Your task to perform on an android device: install app "File Manager" Image 0: 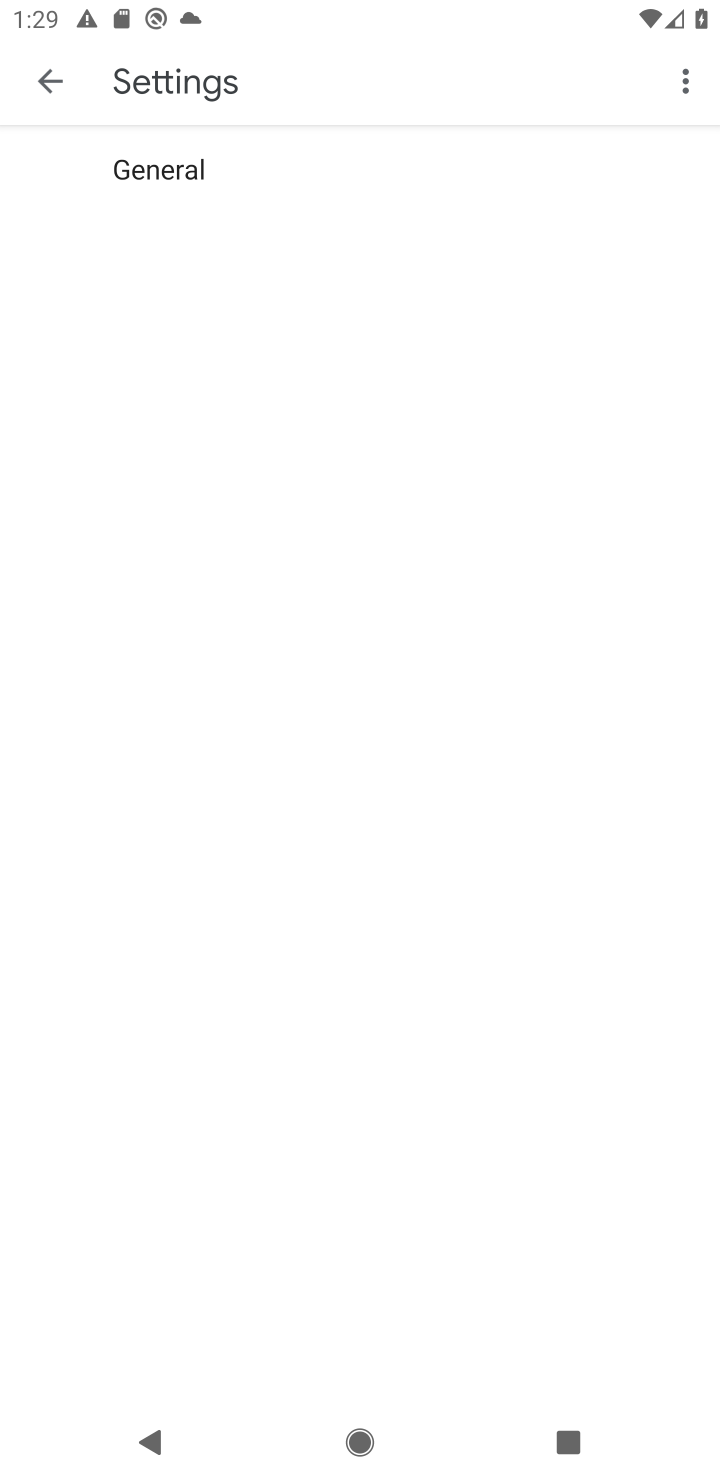
Step 0: press home button
Your task to perform on an android device: install app "File Manager" Image 1: 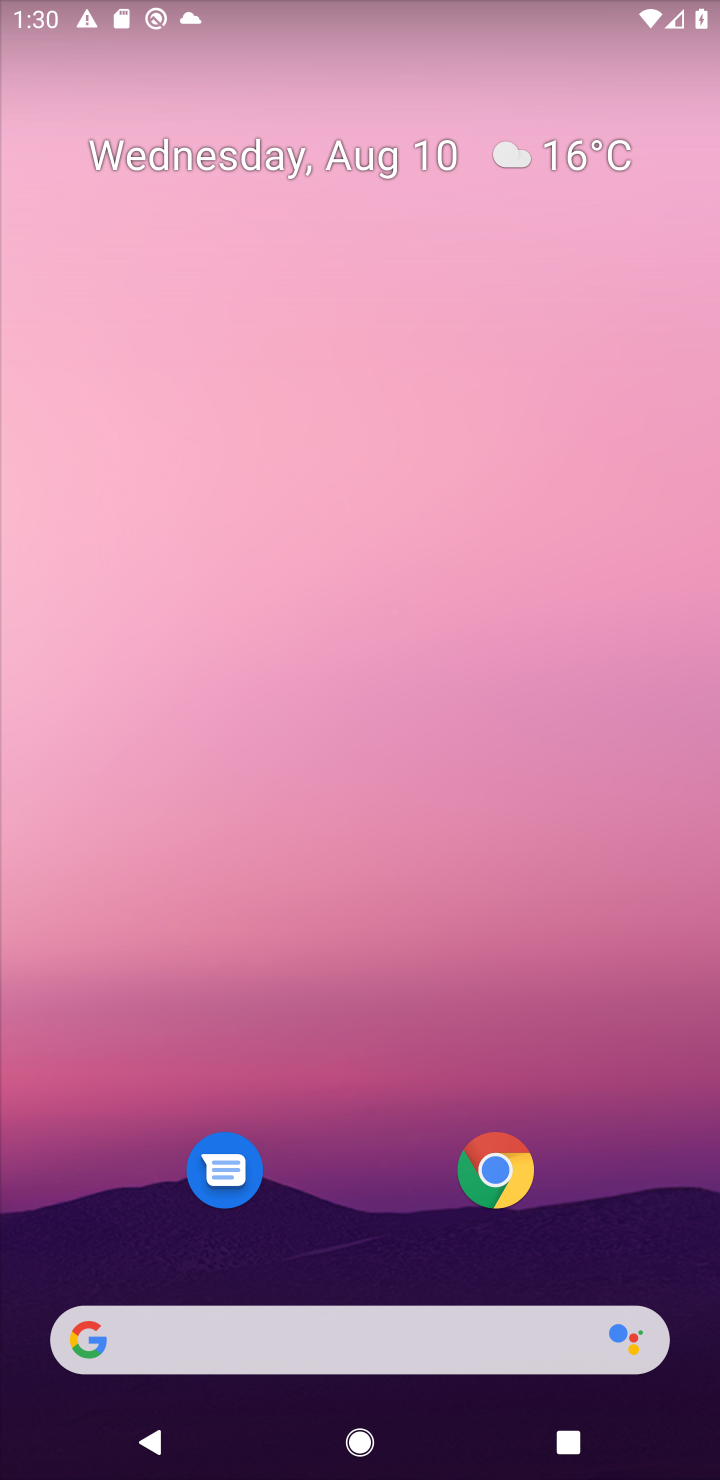
Step 1: drag from (394, 1323) to (324, 439)
Your task to perform on an android device: install app "File Manager" Image 2: 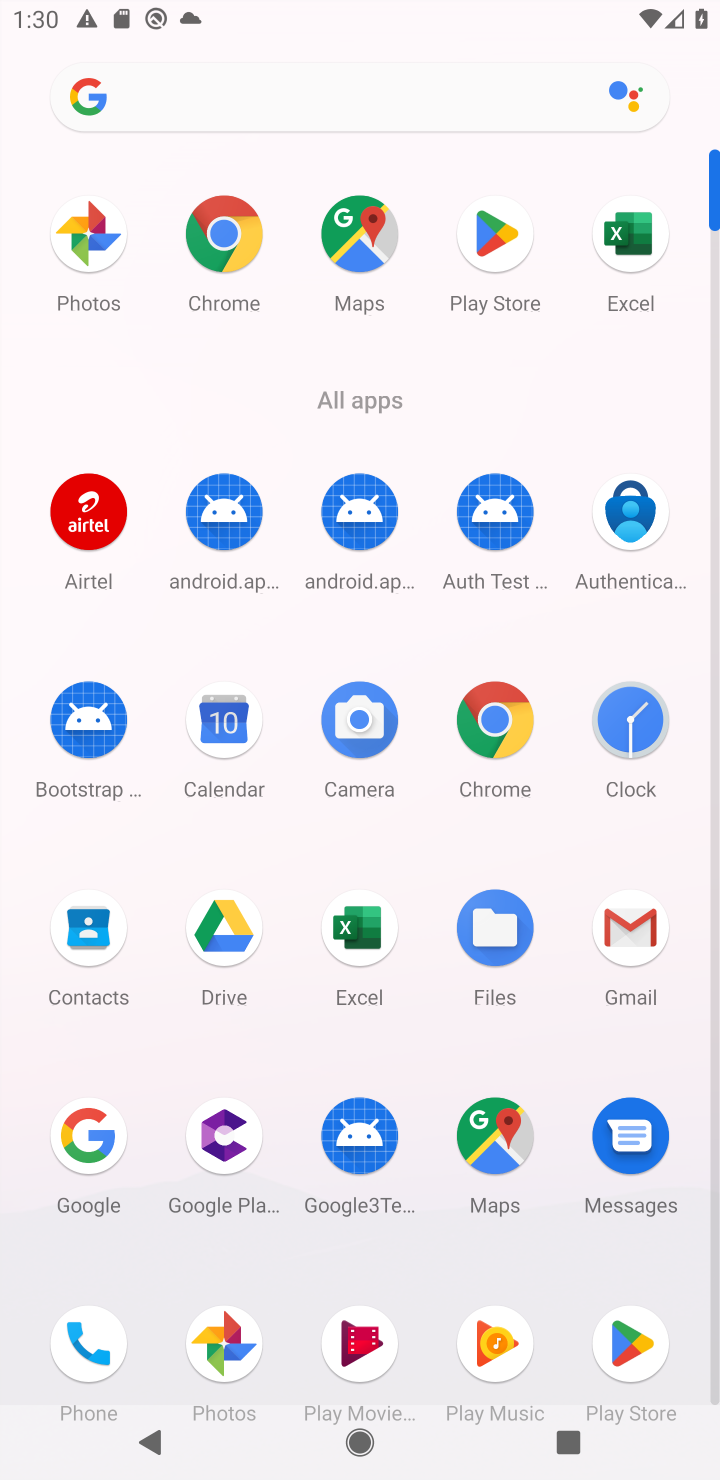
Step 2: click (520, 268)
Your task to perform on an android device: install app "File Manager" Image 3: 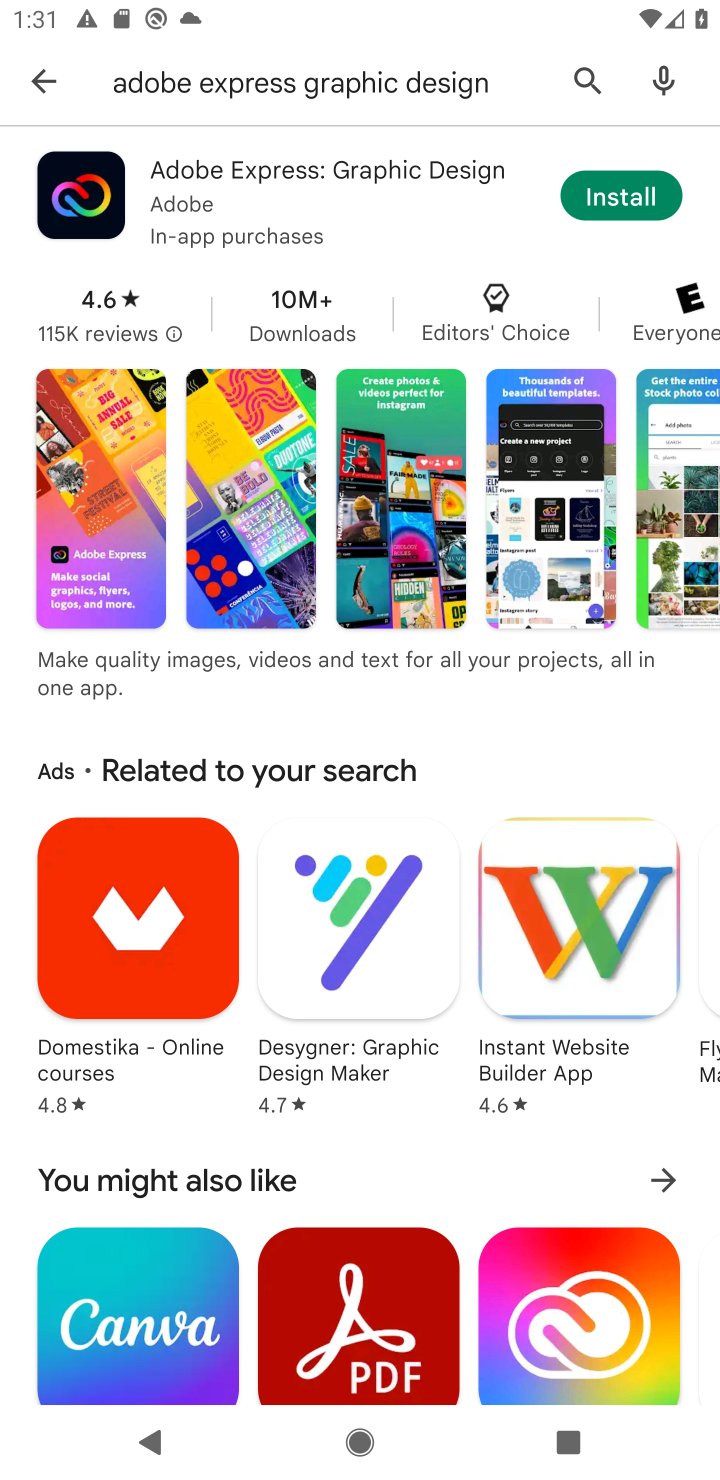
Step 3: click (569, 100)
Your task to perform on an android device: install app "File Manager" Image 4: 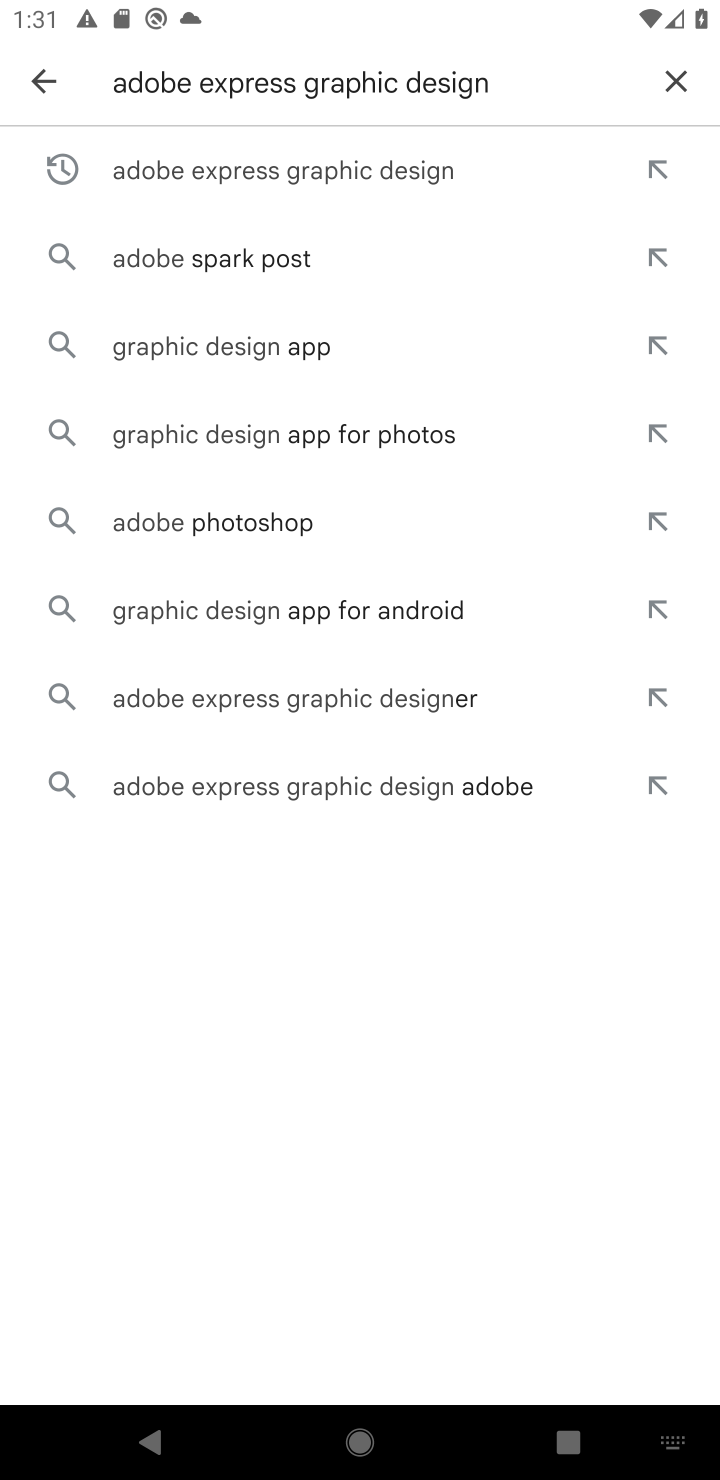
Step 4: click (684, 89)
Your task to perform on an android device: install app "File Manager" Image 5: 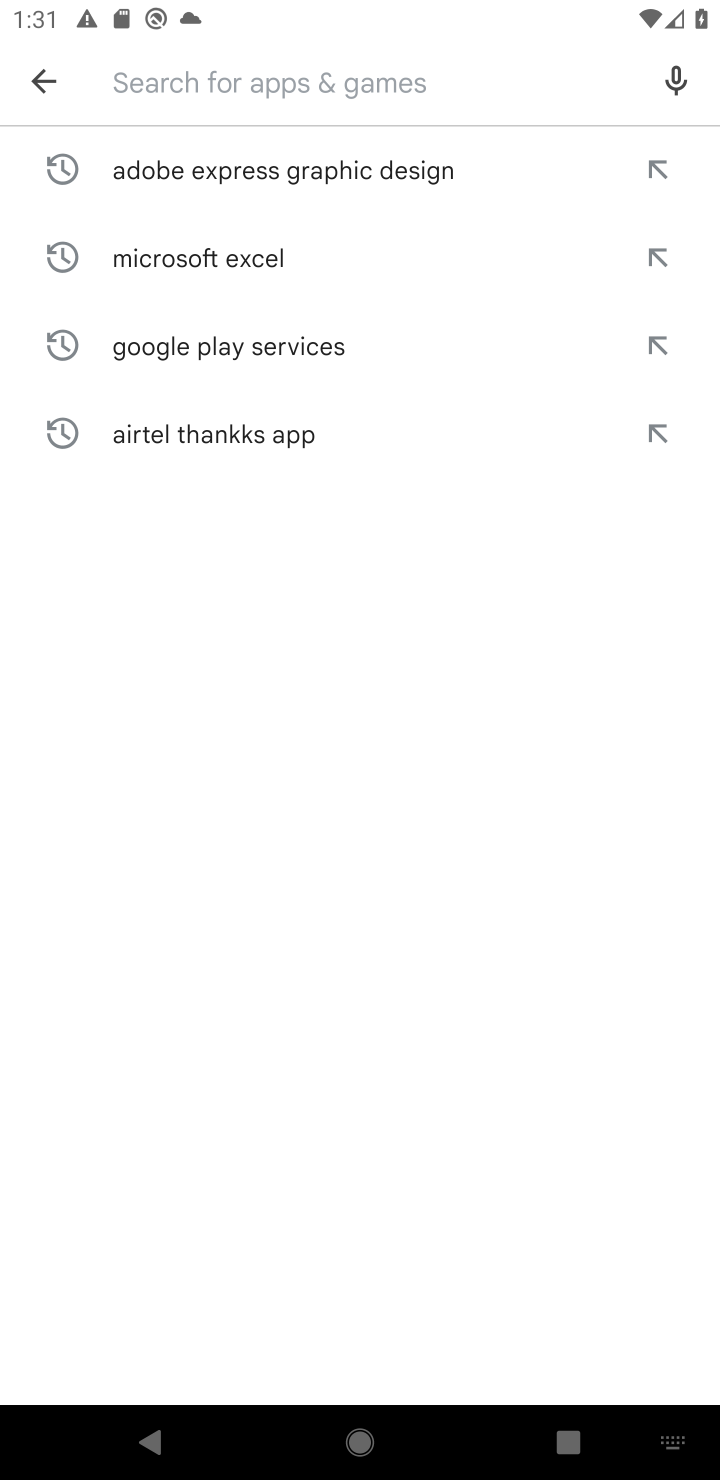
Step 5: type "File Manager"
Your task to perform on an android device: install app "File Manager" Image 6: 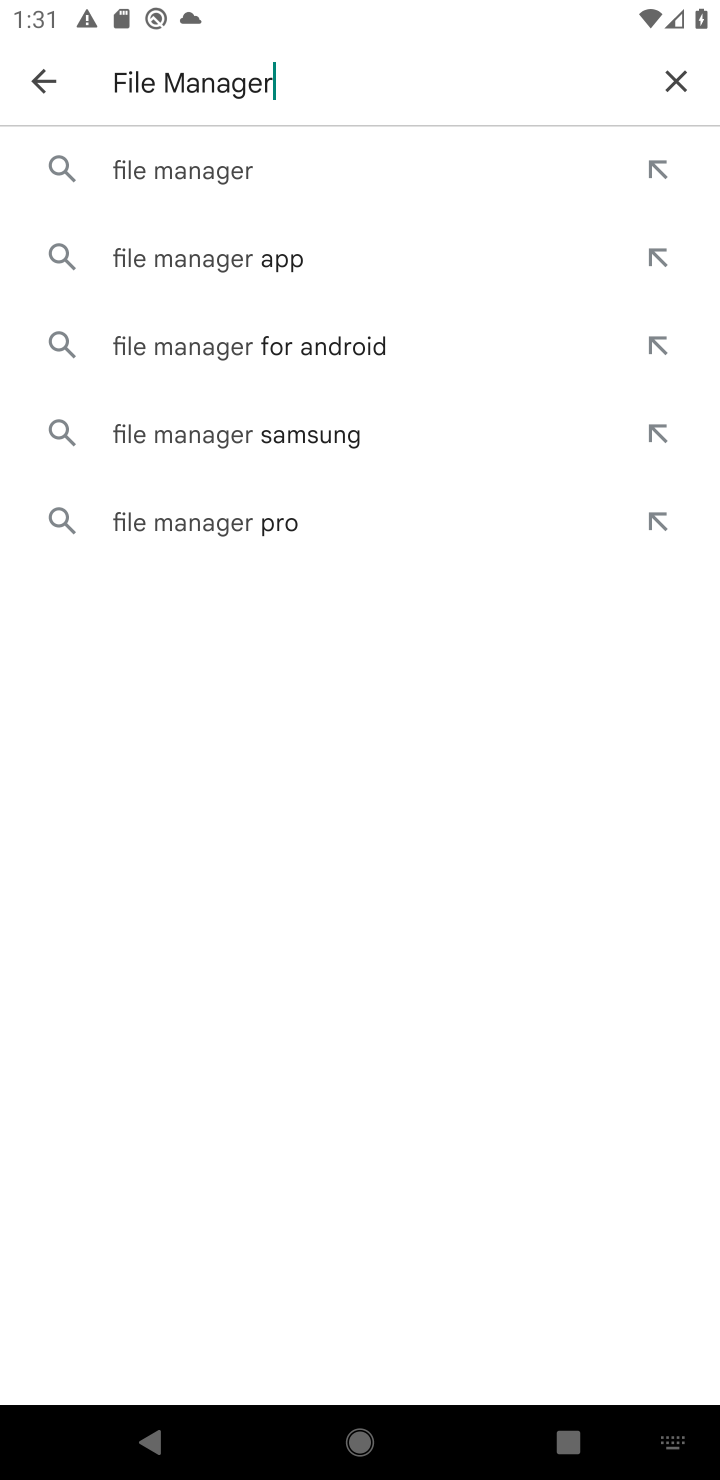
Step 6: click (220, 158)
Your task to perform on an android device: install app "File Manager" Image 7: 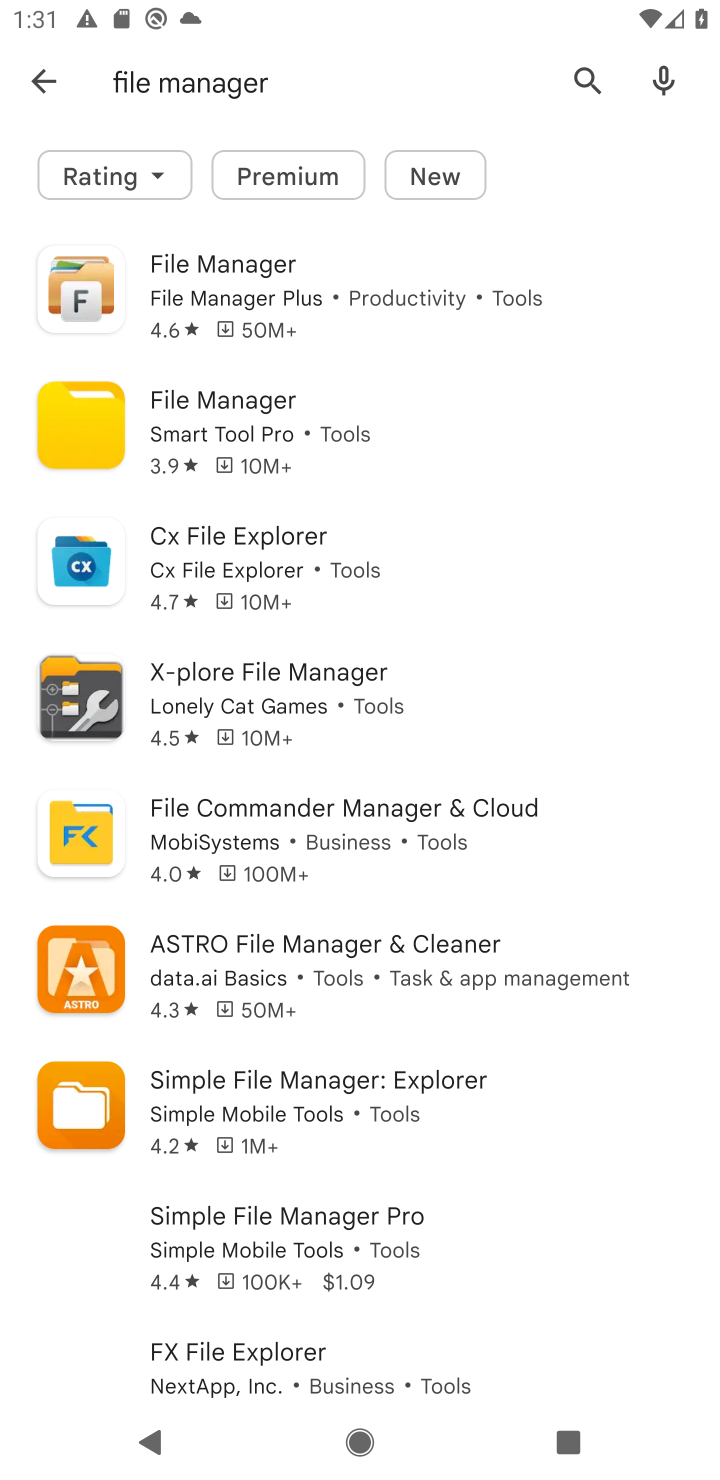
Step 7: click (277, 321)
Your task to perform on an android device: install app "File Manager" Image 8: 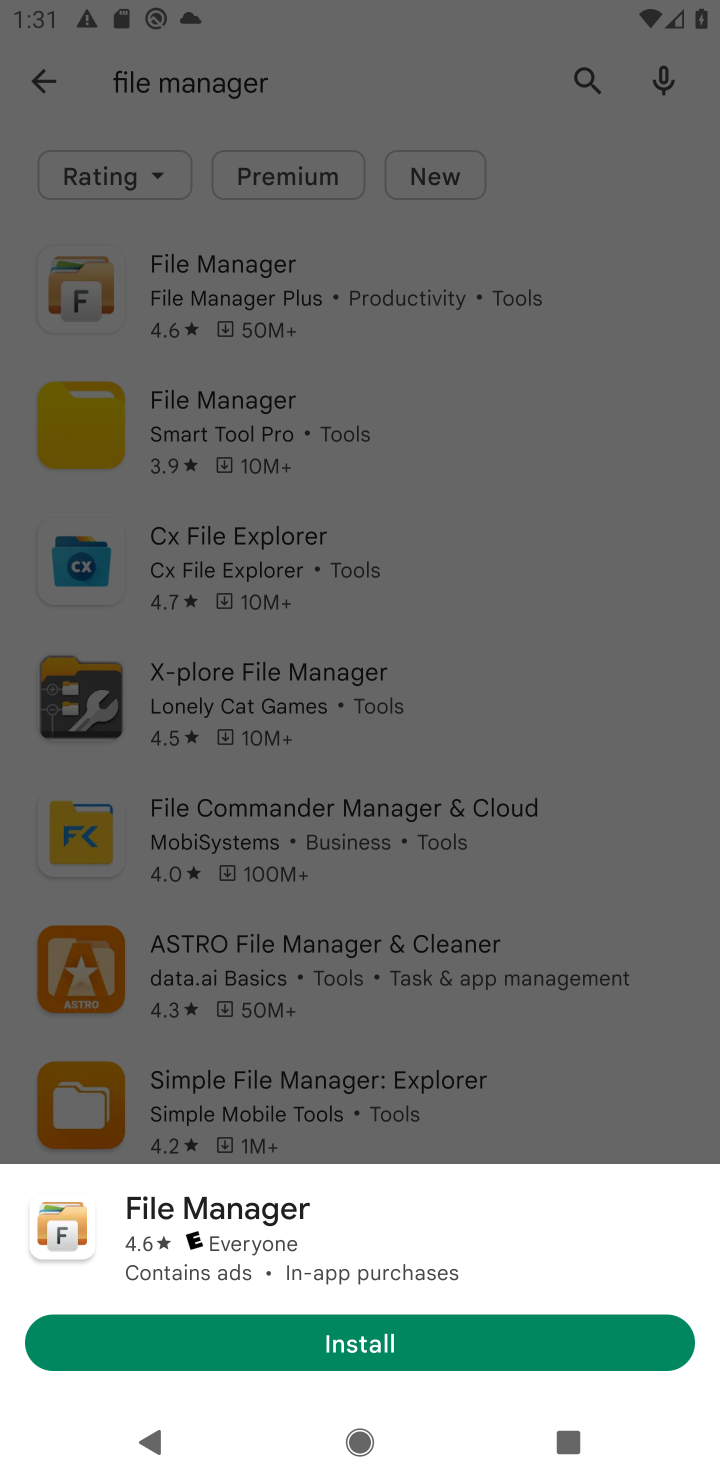
Step 8: task complete